Your task to perform on an android device: Open ESPN.com Image 0: 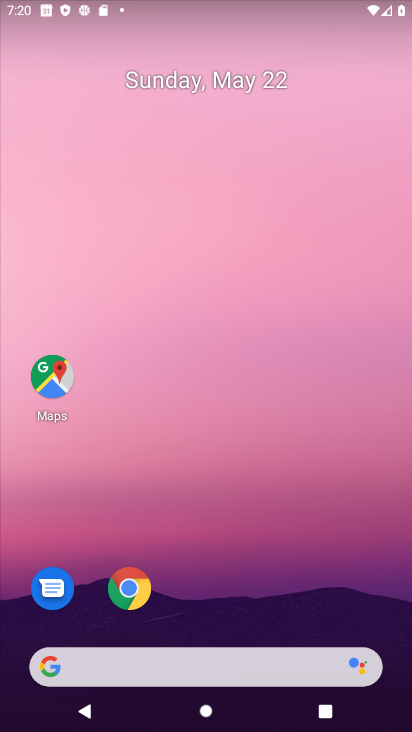
Step 0: click (132, 584)
Your task to perform on an android device: Open ESPN.com Image 1: 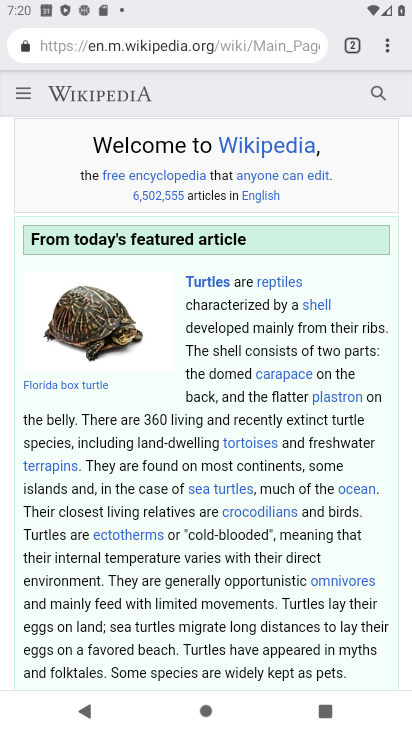
Step 1: click (390, 48)
Your task to perform on an android device: Open ESPN.com Image 2: 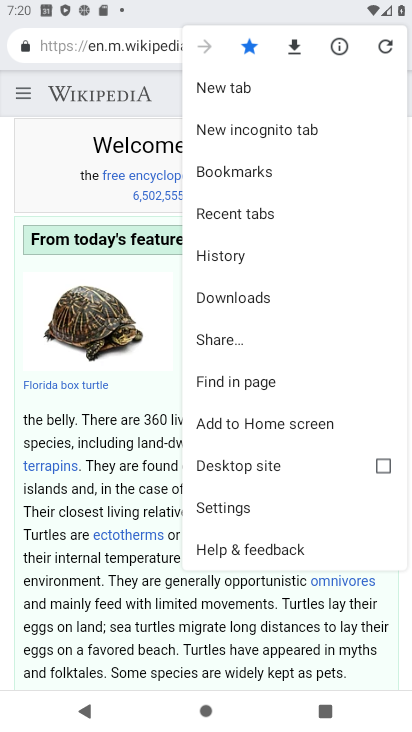
Step 2: click (224, 88)
Your task to perform on an android device: Open ESPN.com Image 3: 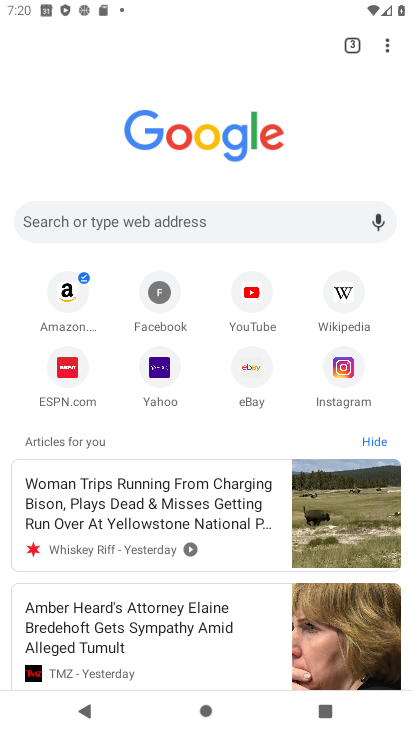
Step 3: click (56, 369)
Your task to perform on an android device: Open ESPN.com Image 4: 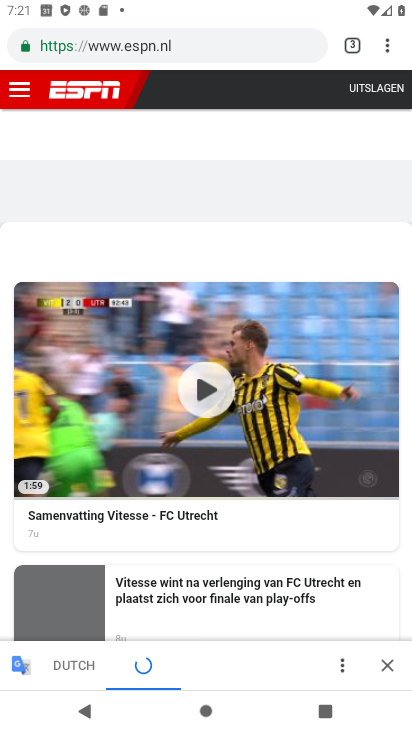
Step 4: task complete